Your task to perform on an android device: open wifi settings Image 0: 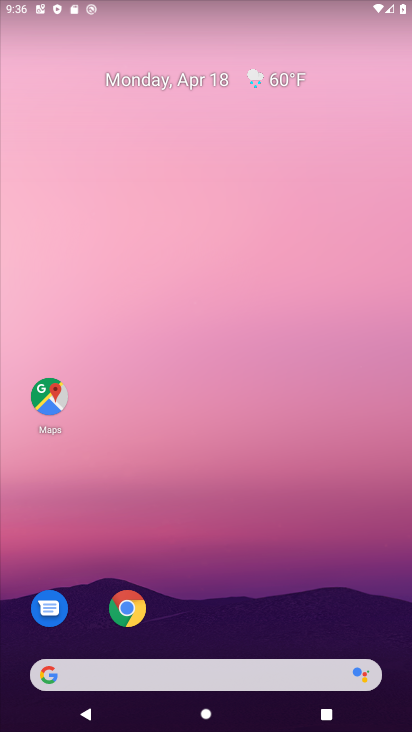
Step 0: drag from (198, 635) to (225, 153)
Your task to perform on an android device: open wifi settings Image 1: 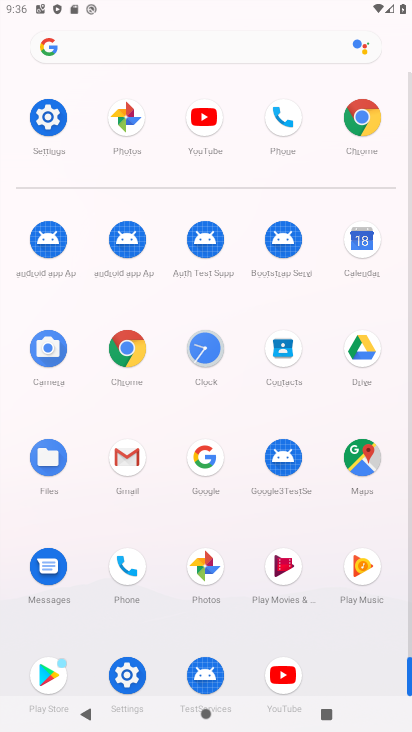
Step 1: click (40, 128)
Your task to perform on an android device: open wifi settings Image 2: 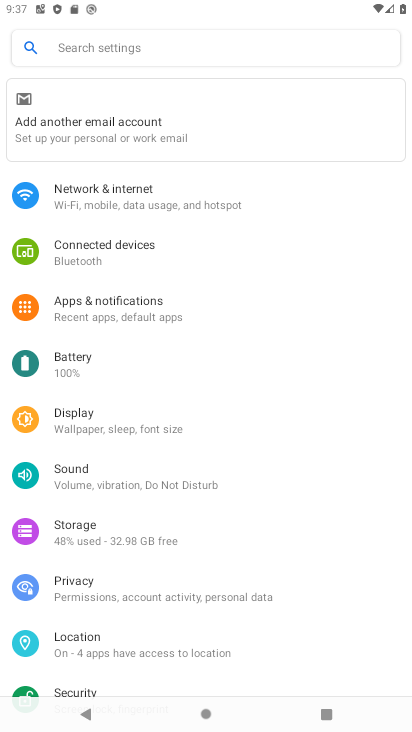
Step 2: click (154, 216)
Your task to perform on an android device: open wifi settings Image 3: 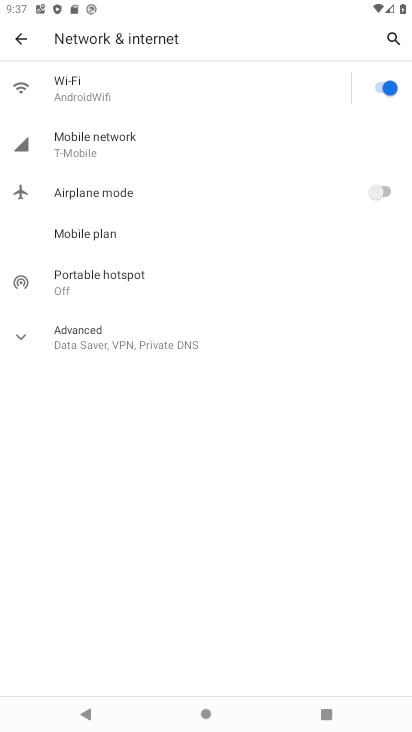
Step 3: click (249, 84)
Your task to perform on an android device: open wifi settings Image 4: 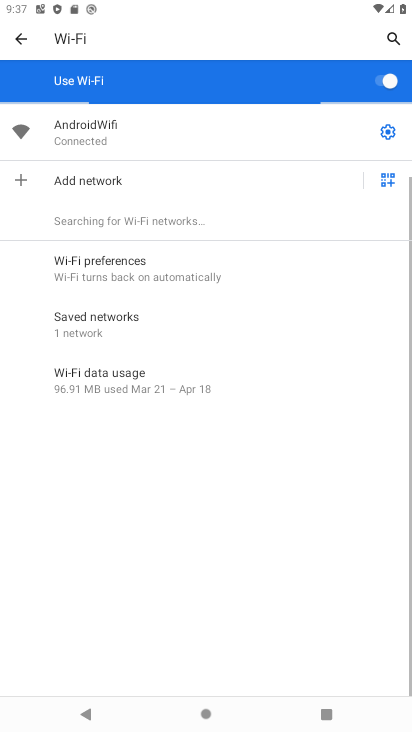
Step 4: click (380, 123)
Your task to perform on an android device: open wifi settings Image 5: 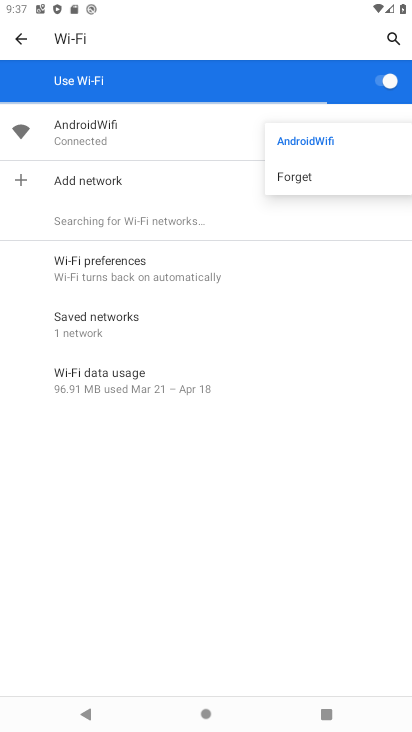
Step 5: task complete